Your task to perform on an android device: refresh tabs in the chrome app Image 0: 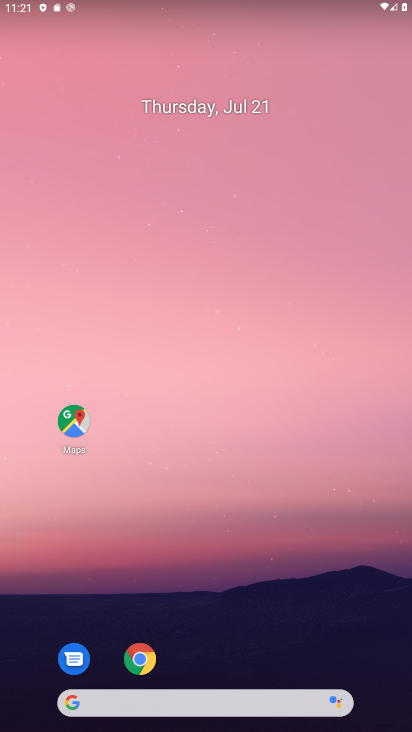
Step 0: click (143, 662)
Your task to perform on an android device: refresh tabs in the chrome app Image 1: 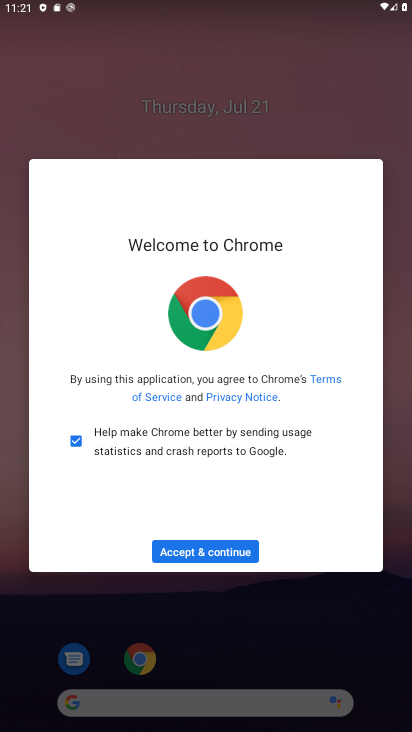
Step 1: click (222, 550)
Your task to perform on an android device: refresh tabs in the chrome app Image 2: 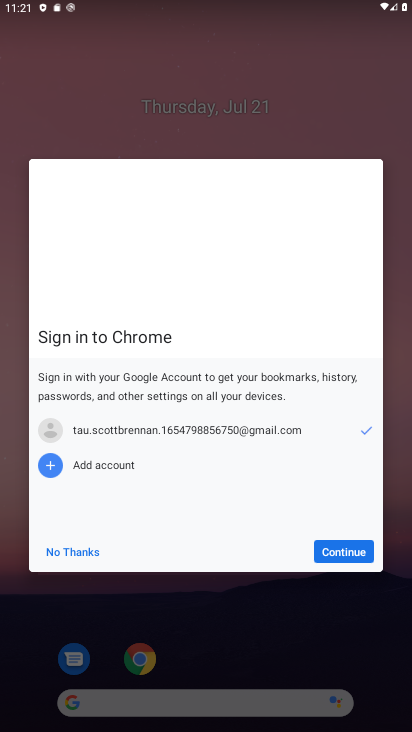
Step 2: click (353, 564)
Your task to perform on an android device: refresh tabs in the chrome app Image 3: 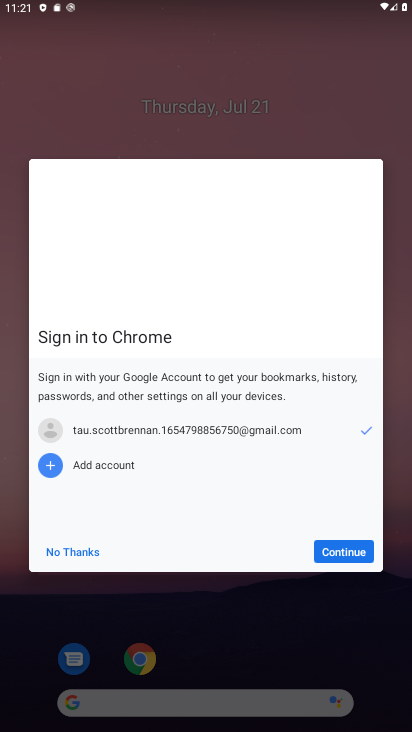
Step 3: task complete